Your task to perform on an android device: open app "Firefox Browser" (install if not already installed) Image 0: 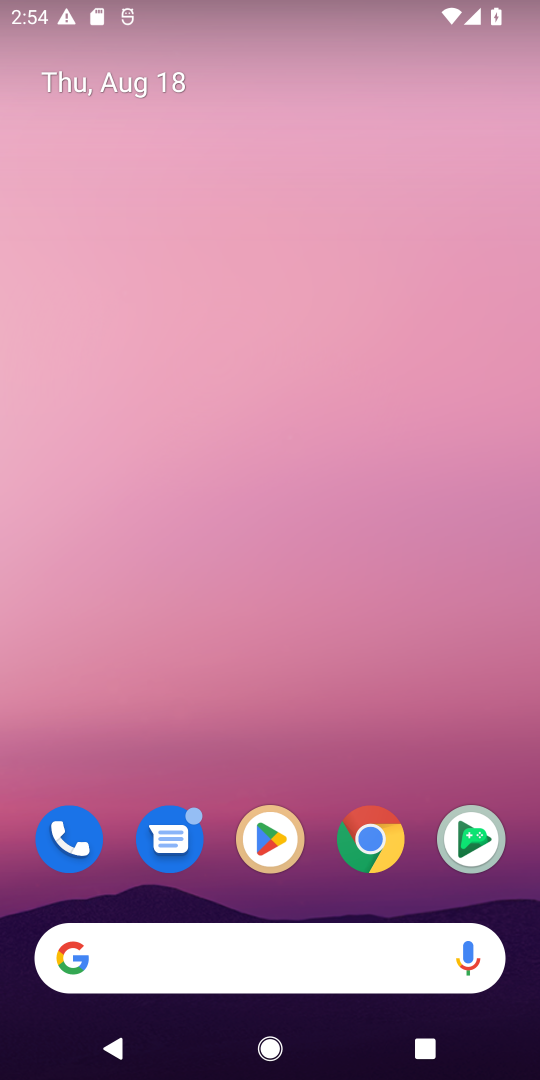
Step 0: click (281, 843)
Your task to perform on an android device: open app "Firefox Browser" (install if not already installed) Image 1: 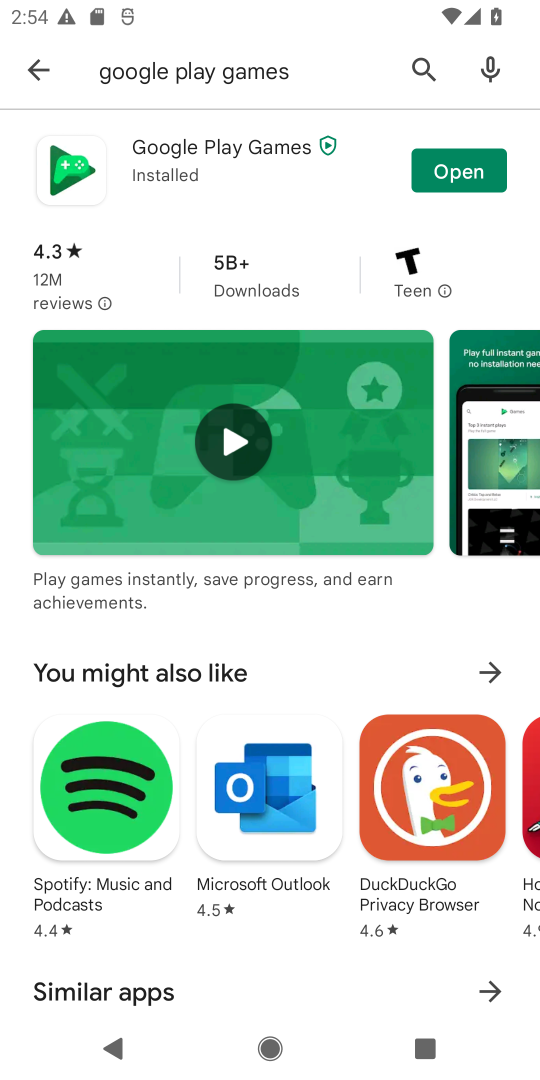
Step 1: click (34, 64)
Your task to perform on an android device: open app "Firefox Browser" (install if not already installed) Image 2: 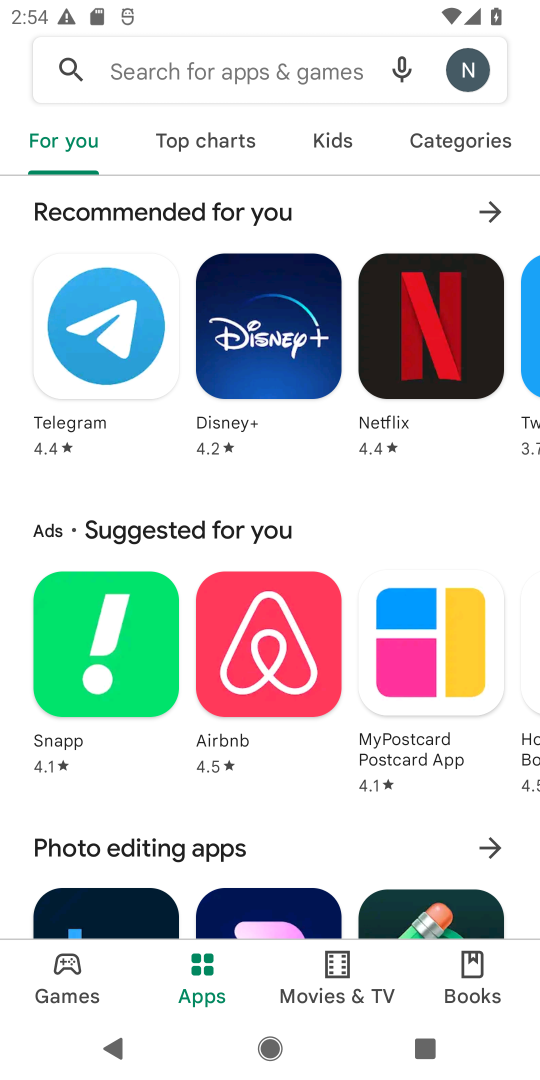
Step 2: click (157, 86)
Your task to perform on an android device: open app "Firefox Browser" (install if not already installed) Image 3: 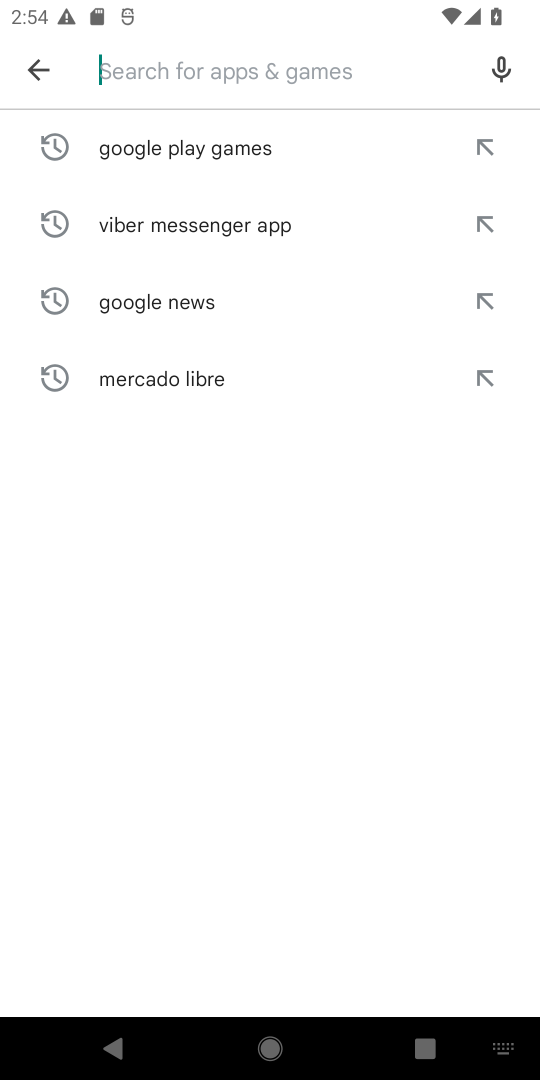
Step 3: type "Firefox Browser"
Your task to perform on an android device: open app "Firefox Browser" (install if not already installed) Image 4: 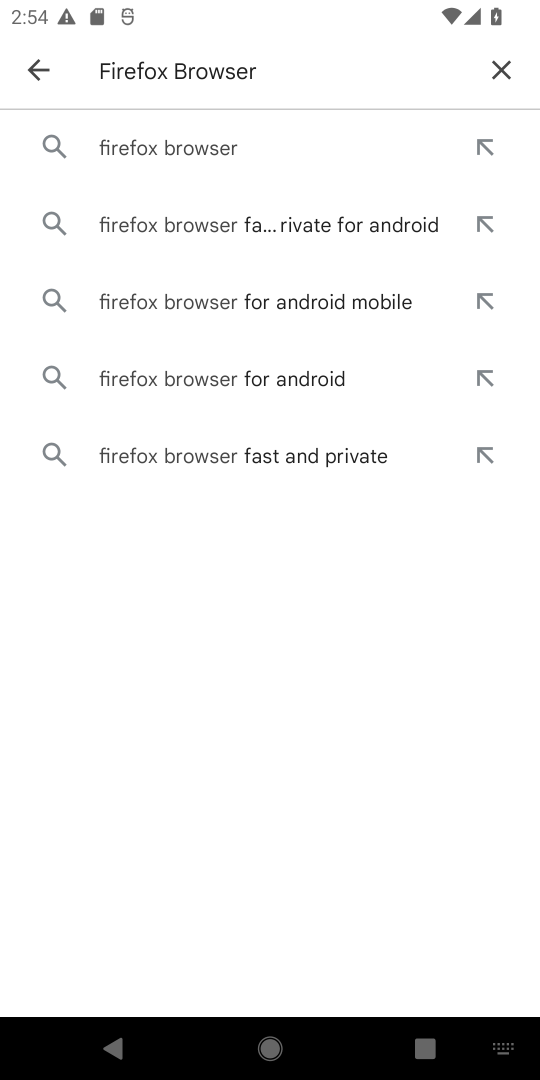
Step 4: click (205, 154)
Your task to perform on an android device: open app "Firefox Browser" (install if not already installed) Image 5: 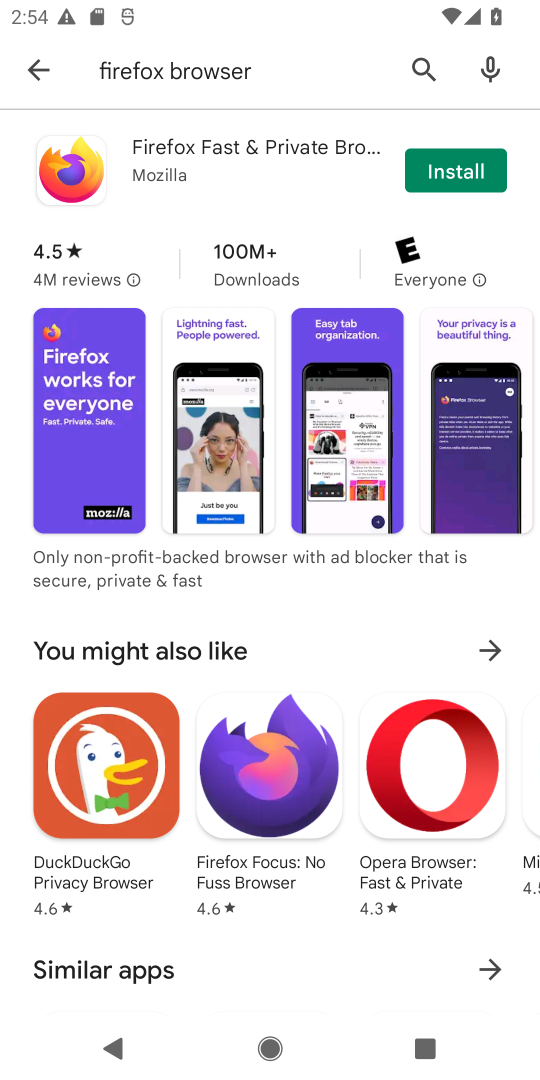
Step 5: click (453, 174)
Your task to perform on an android device: open app "Firefox Browser" (install if not already installed) Image 6: 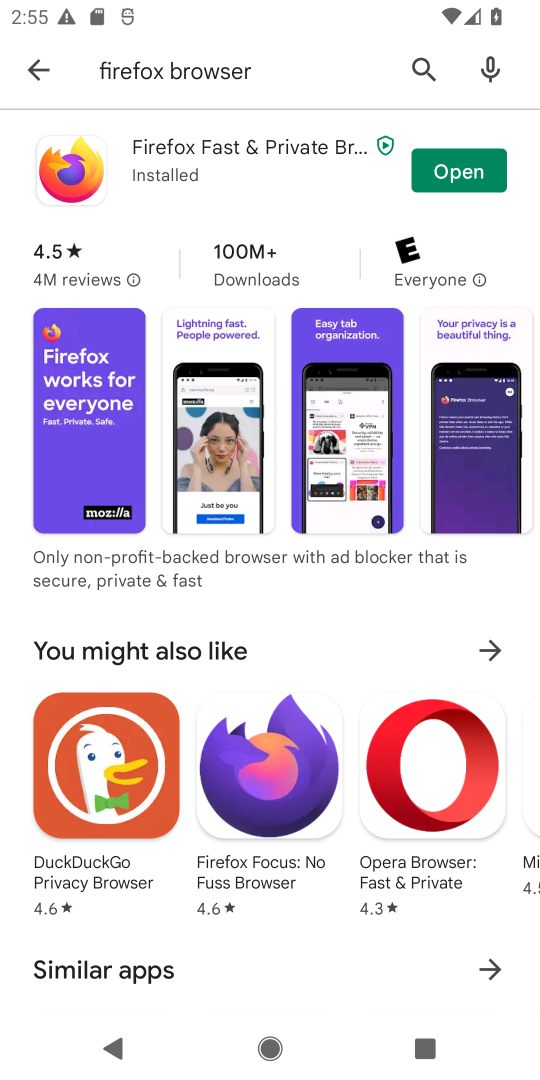
Step 6: click (456, 167)
Your task to perform on an android device: open app "Firefox Browser" (install if not already installed) Image 7: 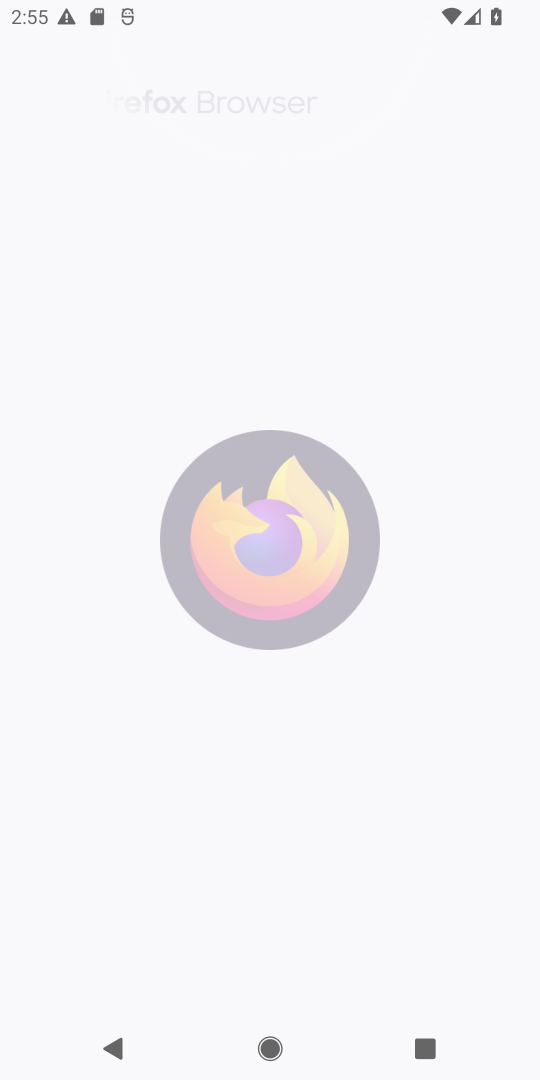
Step 7: task complete